Your task to perform on an android device: open a bookmark in the chrome app Image 0: 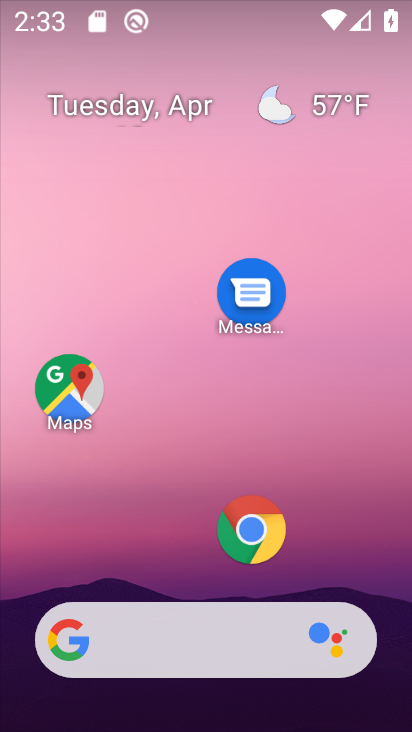
Step 0: click (252, 533)
Your task to perform on an android device: open a bookmark in the chrome app Image 1: 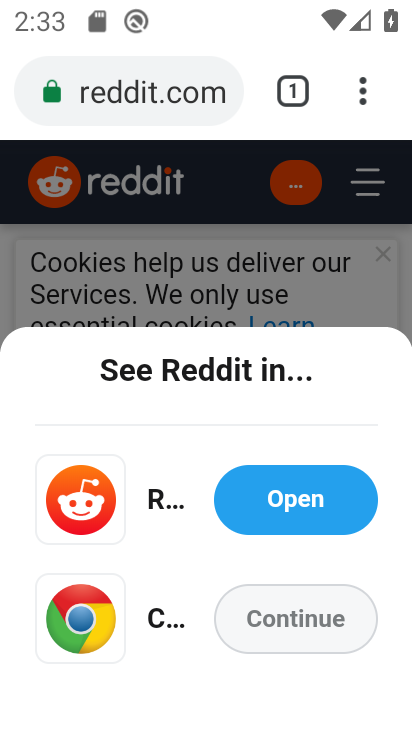
Step 1: click (360, 84)
Your task to perform on an android device: open a bookmark in the chrome app Image 2: 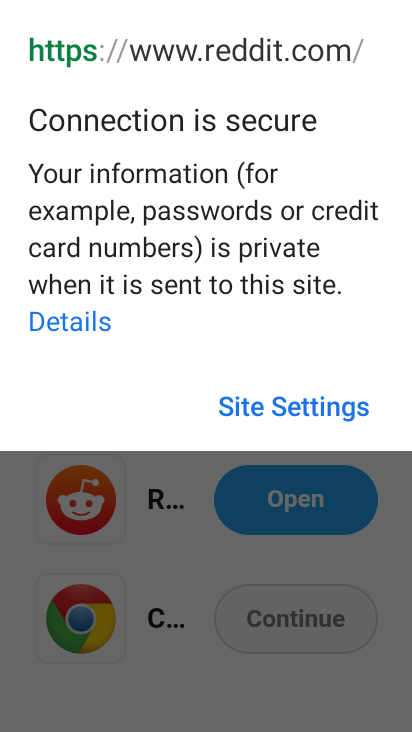
Step 2: click (184, 498)
Your task to perform on an android device: open a bookmark in the chrome app Image 3: 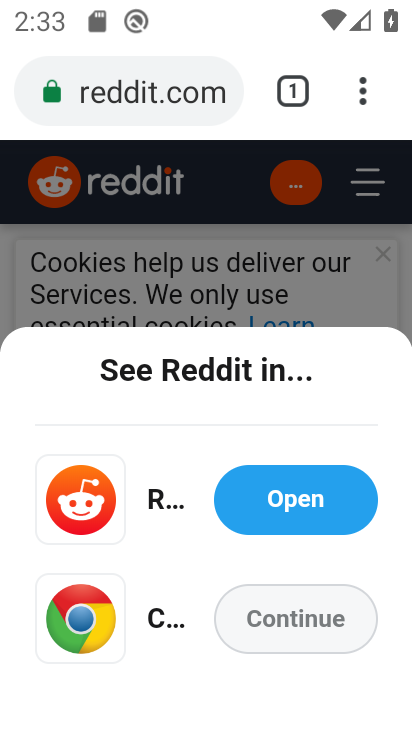
Step 3: click (350, 89)
Your task to perform on an android device: open a bookmark in the chrome app Image 4: 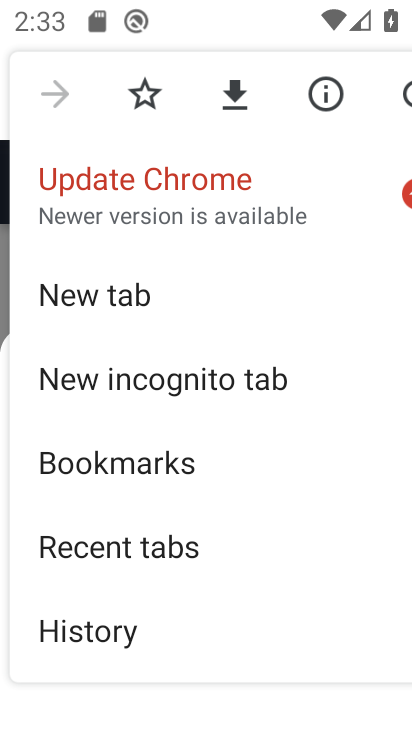
Step 4: click (194, 482)
Your task to perform on an android device: open a bookmark in the chrome app Image 5: 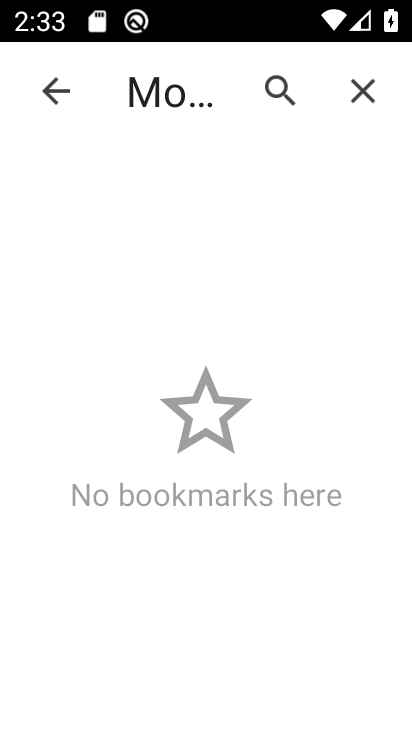
Step 5: task complete